Your task to perform on an android device: remove spam from my inbox in the gmail app Image 0: 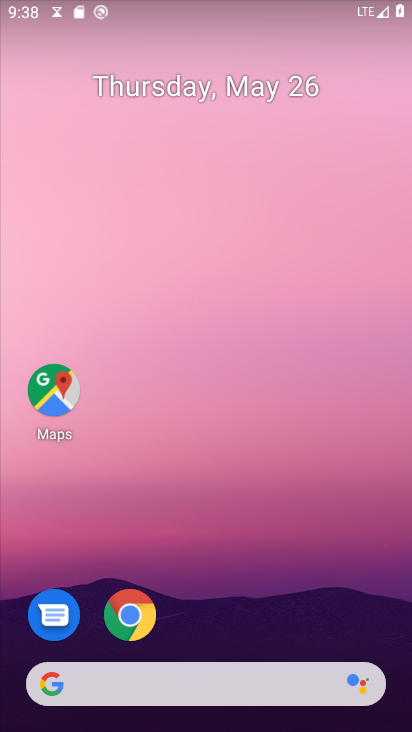
Step 0: drag from (254, 507) to (262, 278)
Your task to perform on an android device: remove spam from my inbox in the gmail app Image 1: 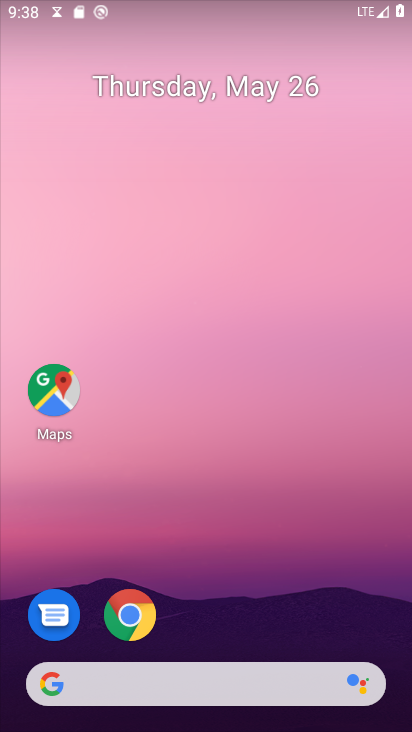
Step 1: drag from (240, 602) to (234, 191)
Your task to perform on an android device: remove spam from my inbox in the gmail app Image 2: 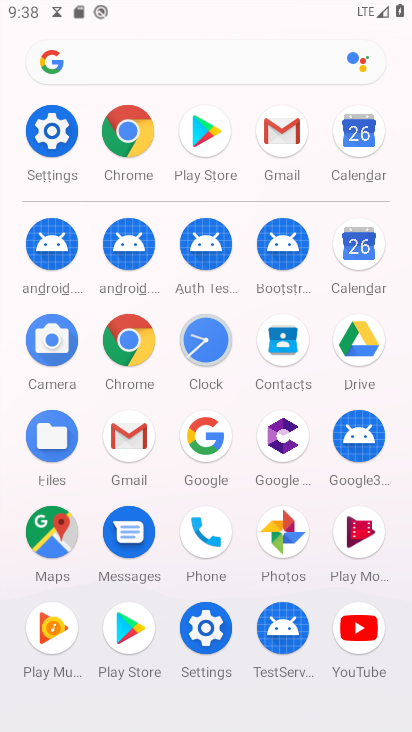
Step 2: click (137, 436)
Your task to perform on an android device: remove spam from my inbox in the gmail app Image 3: 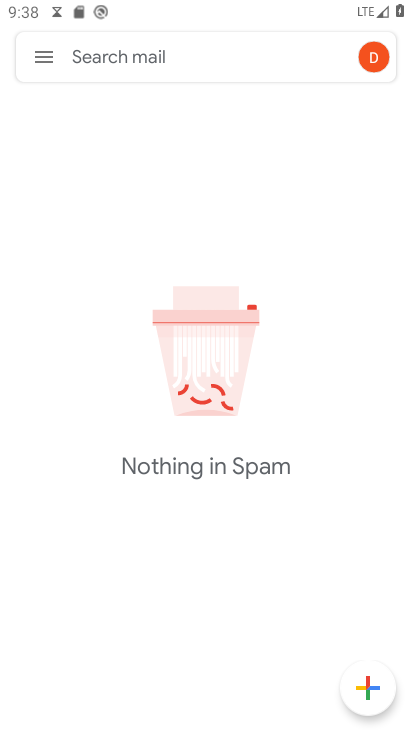
Step 3: click (43, 52)
Your task to perform on an android device: remove spam from my inbox in the gmail app Image 4: 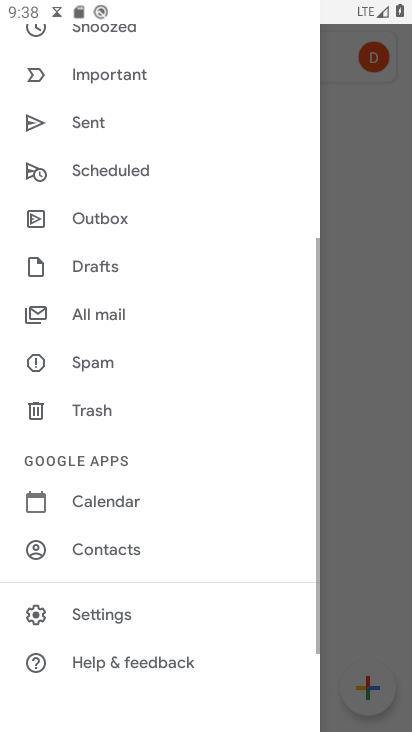
Step 4: click (87, 362)
Your task to perform on an android device: remove spam from my inbox in the gmail app Image 5: 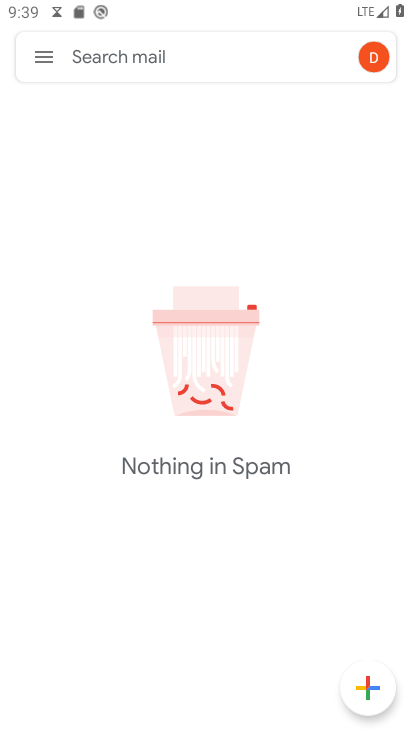
Step 5: task complete